Your task to perform on an android device: turn on translation in the chrome app Image 0: 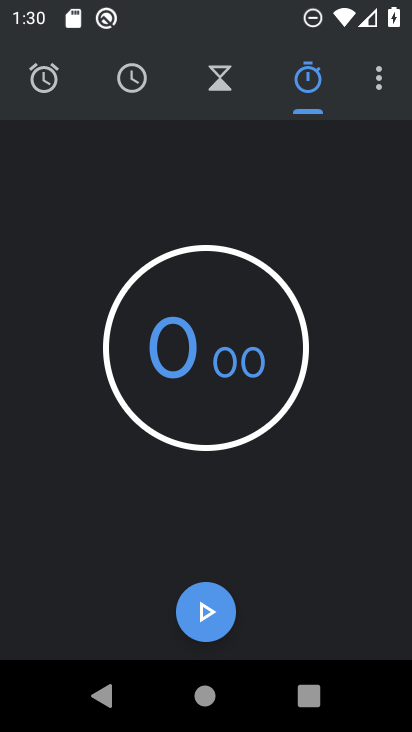
Step 0: press home button
Your task to perform on an android device: turn on translation in the chrome app Image 1: 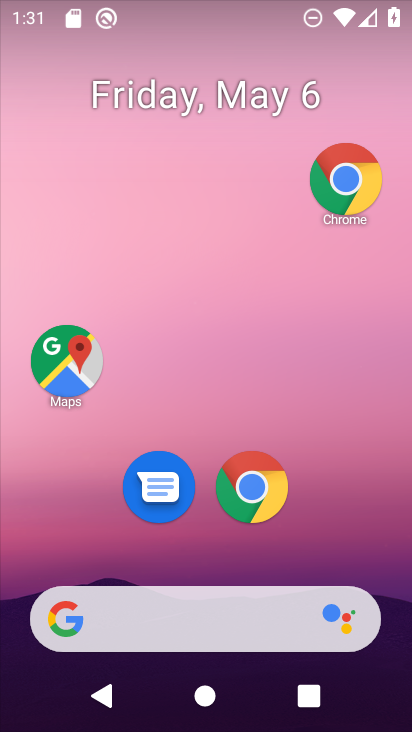
Step 1: click (265, 507)
Your task to perform on an android device: turn on translation in the chrome app Image 2: 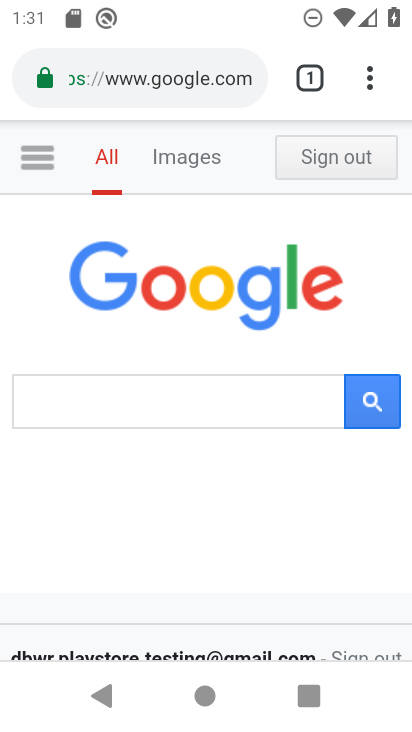
Step 2: click (372, 92)
Your task to perform on an android device: turn on translation in the chrome app Image 3: 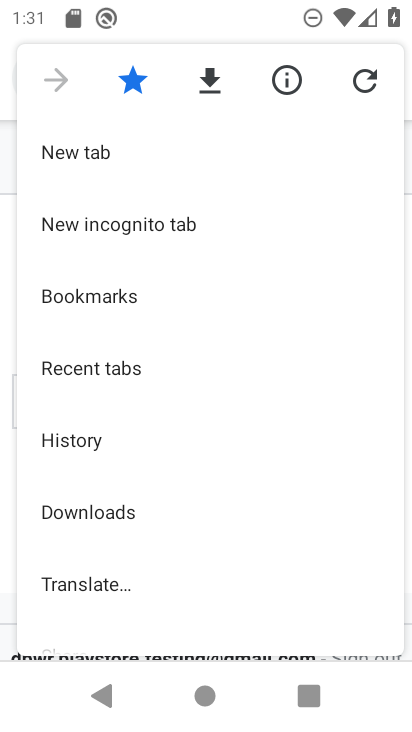
Step 3: drag from (182, 514) to (212, 284)
Your task to perform on an android device: turn on translation in the chrome app Image 4: 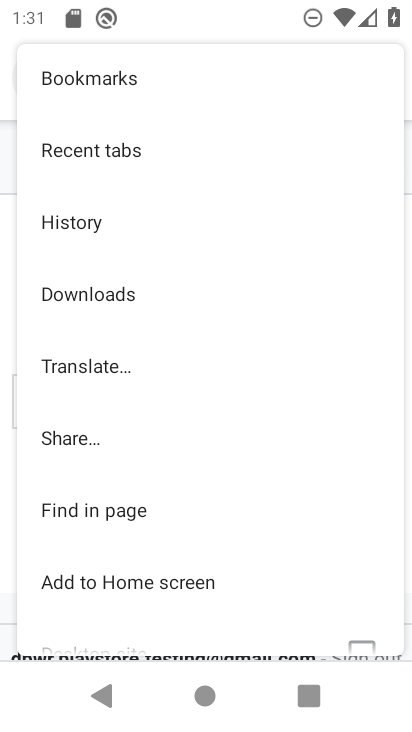
Step 4: drag from (160, 504) to (187, 332)
Your task to perform on an android device: turn on translation in the chrome app Image 5: 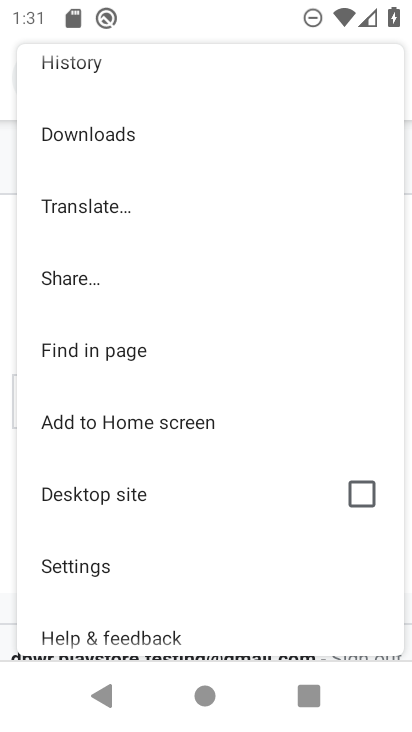
Step 5: drag from (155, 538) to (206, 281)
Your task to perform on an android device: turn on translation in the chrome app Image 6: 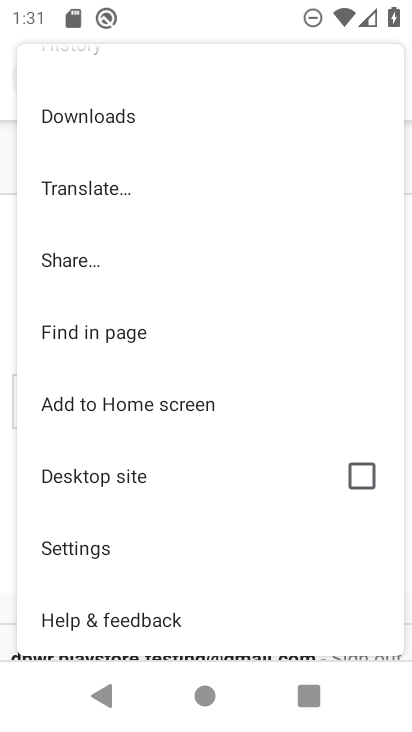
Step 6: click (97, 538)
Your task to perform on an android device: turn on translation in the chrome app Image 7: 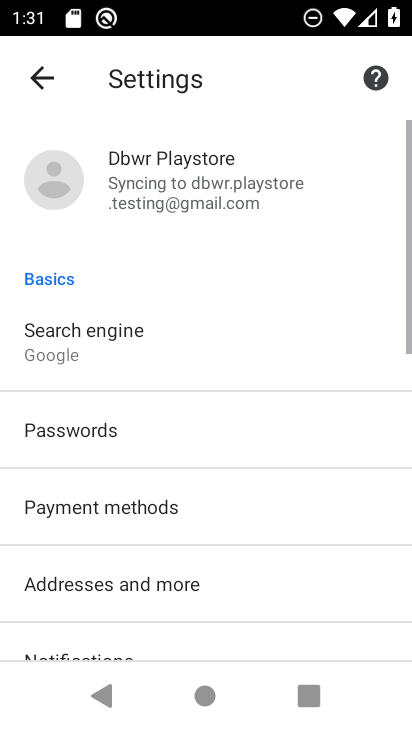
Step 7: drag from (97, 538) to (194, 280)
Your task to perform on an android device: turn on translation in the chrome app Image 8: 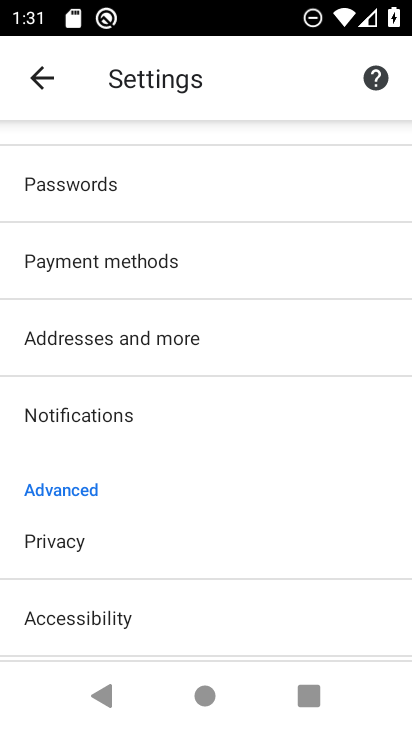
Step 8: drag from (150, 657) to (177, 461)
Your task to perform on an android device: turn on translation in the chrome app Image 9: 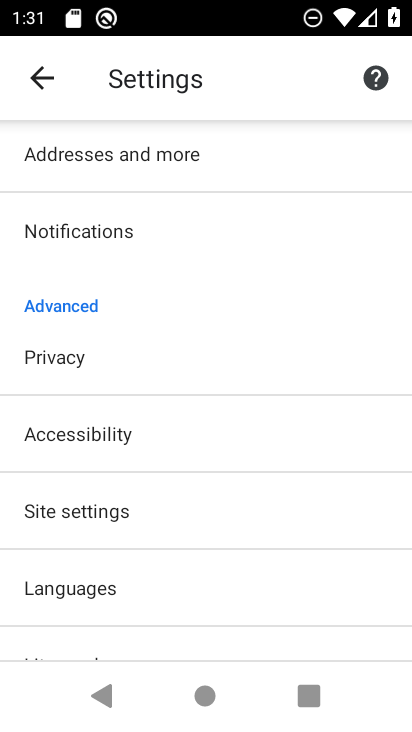
Step 9: drag from (117, 586) to (137, 436)
Your task to perform on an android device: turn on translation in the chrome app Image 10: 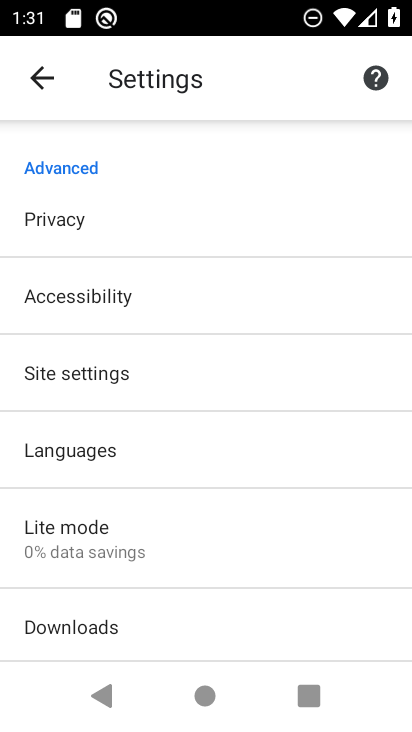
Step 10: drag from (131, 526) to (152, 387)
Your task to perform on an android device: turn on translation in the chrome app Image 11: 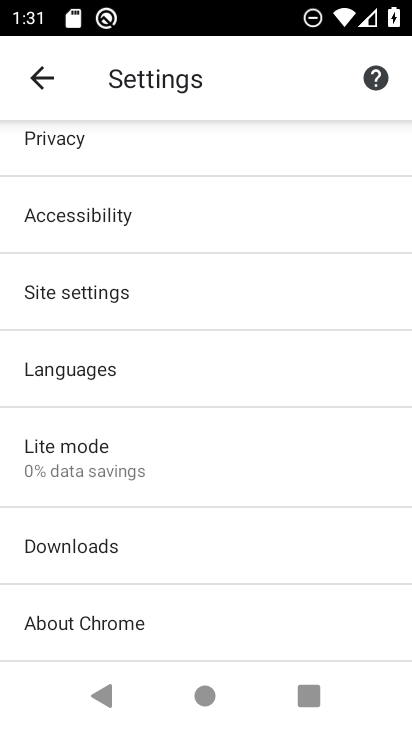
Step 11: click (167, 313)
Your task to perform on an android device: turn on translation in the chrome app Image 12: 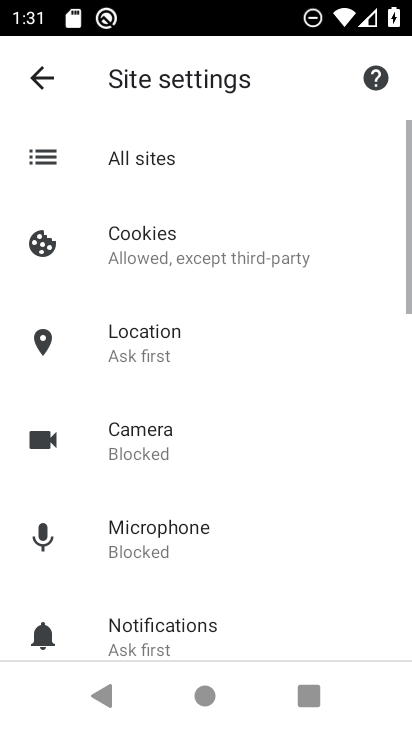
Step 12: drag from (106, 502) to (140, 335)
Your task to perform on an android device: turn on translation in the chrome app Image 13: 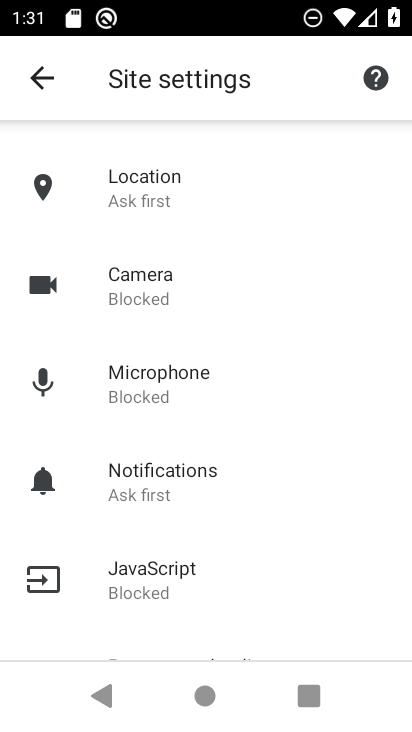
Step 13: drag from (127, 581) to (179, 380)
Your task to perform on an android device: turn on translation in the chrome app Image 14: 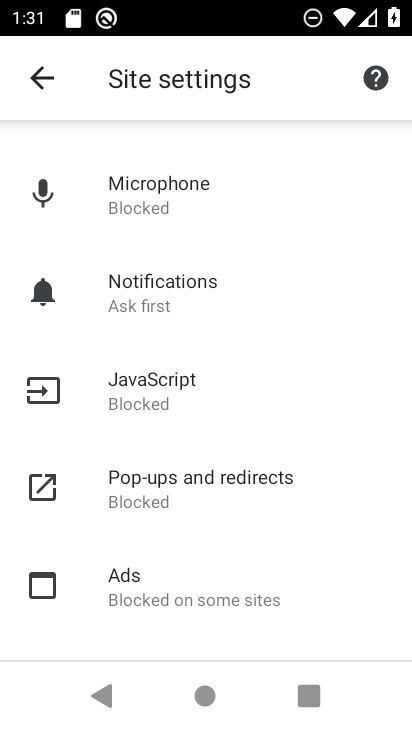
Step 14: click (36, 88)
Your task to perform on an android device: turn on translation in the chrome app Image 15: 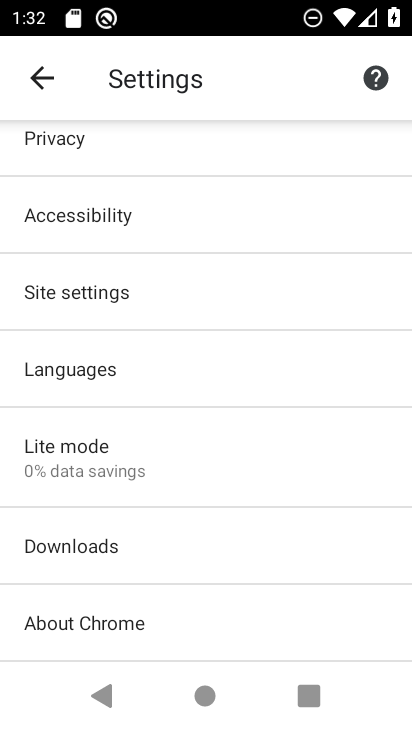
Step 15: click (191, 385)
Your task to perform on an android device: turn on translation in the chrome app Image 16: 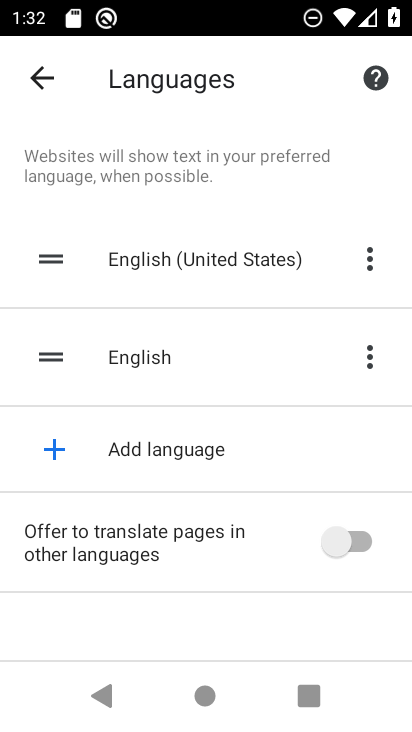
Step 16: click (330, 532)
Your task to perform on an android device: turn on translation in the chrome app Image 17: 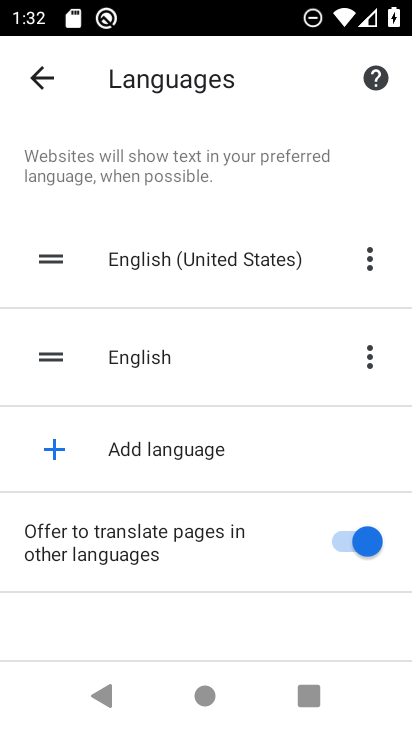
Step 17: task complete